Your task to perform on an android device: Go to Wikipedia Image 0: 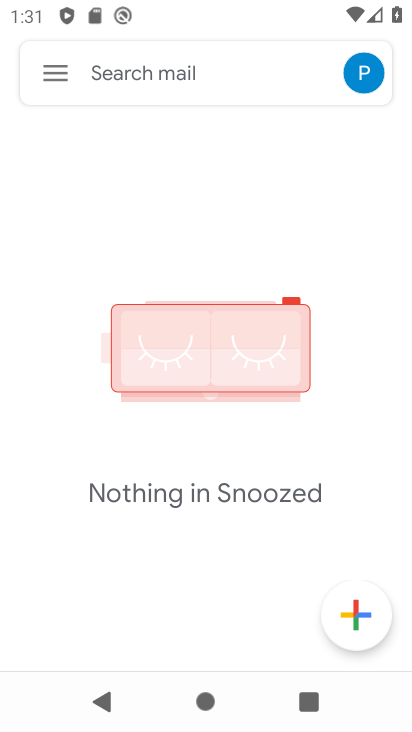
Step 0: press home button
Your task to perform on an android device: Go to Wikipedia Image 1: 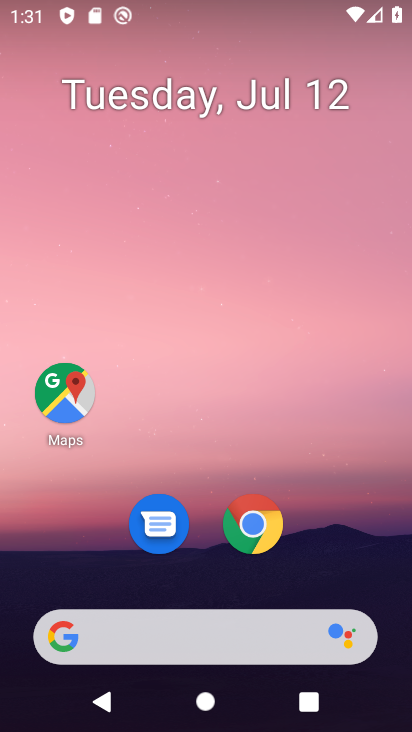
Step 1: click (263, 513)
Your task to perform on an android device: Go to Wikipedia Image 2: 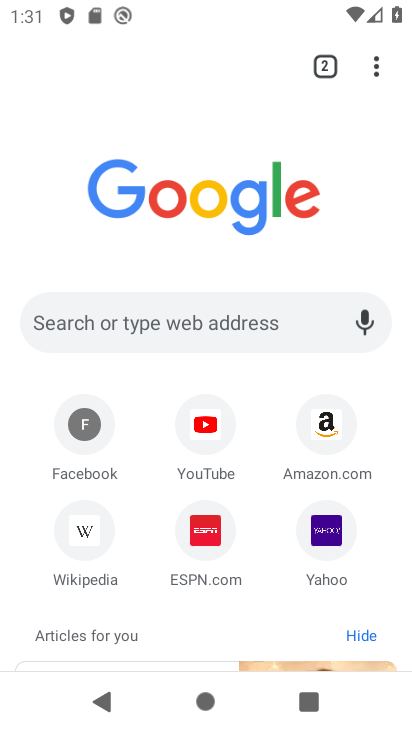
Step 2: click (93, 527)
Your task to perform on an android device: Go to Wikipedia Image 3: 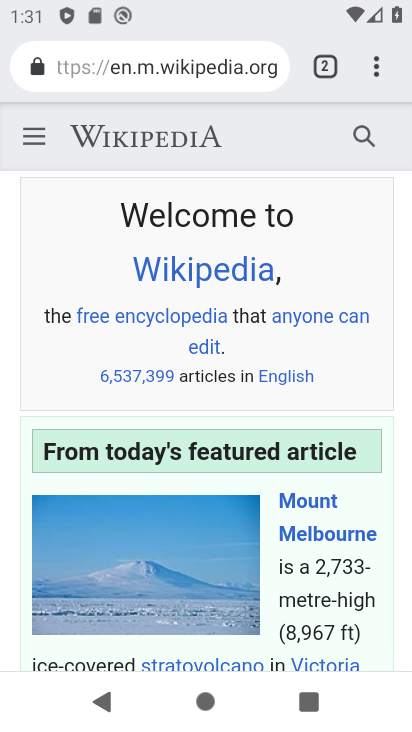
Step 3: task complete